Your task to perform on an android device: read, delete, or share a saved page in the chrome app Image 0: 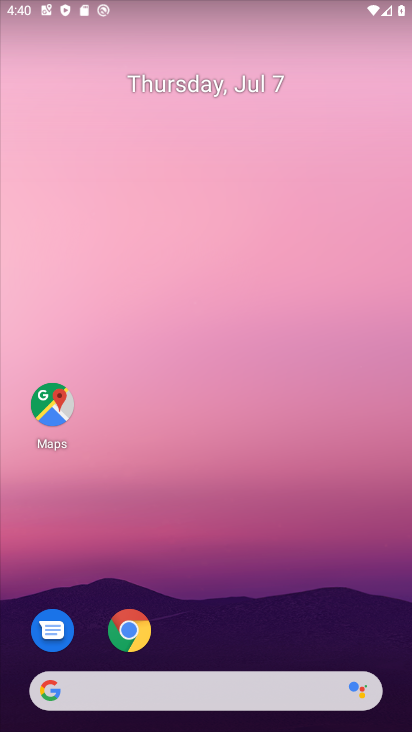
Step 0: click (132, 621)
Your task to perform on an android device: read, delete, or share a saved page in the chrome app Image 1: 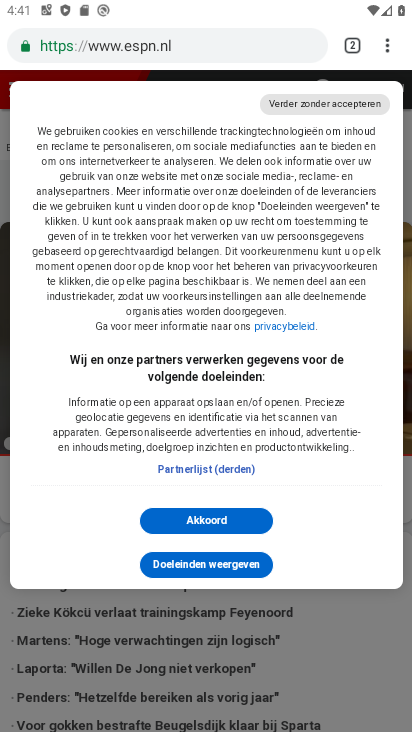
Step 1: click (390, 46)
Your task to perform on an android device: read, delete, or share a saved page in the chrome app Image 2: 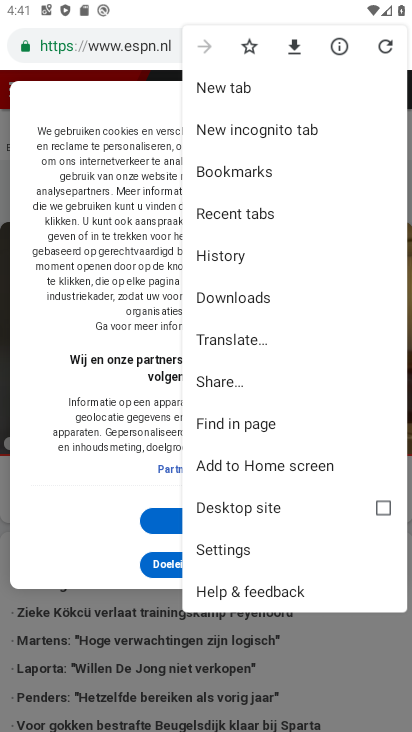
Step 2: click (244, 315)
Your task to perform on an android device: read, delete, or share a saved page in the chrome app Image 3: 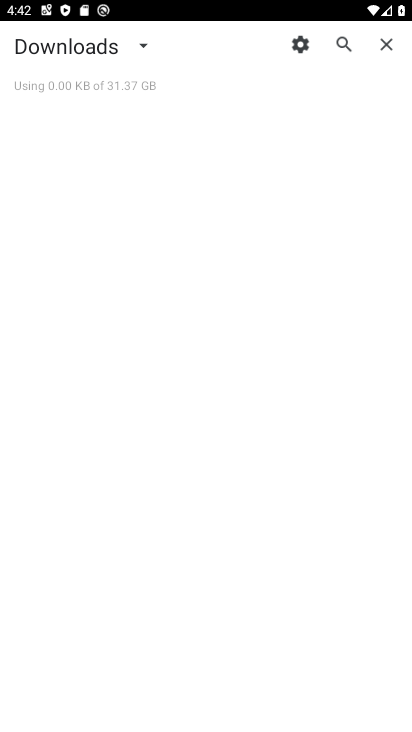
Step 3: task complete